Your task to perform on an android device: star an email in the gmail app Image 0: 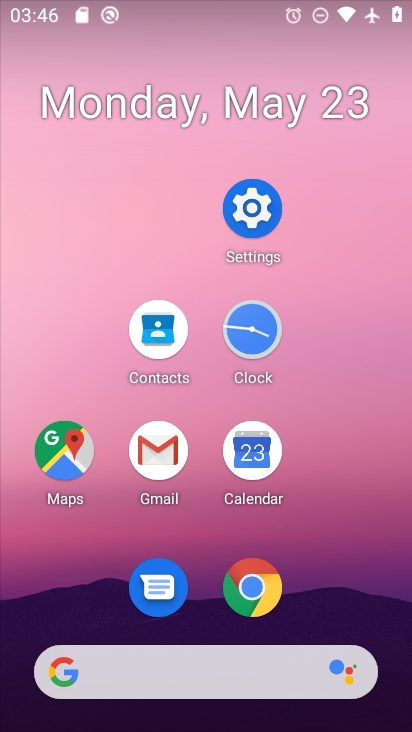
Step 0: click (160, 471)
Your task to perform on an android device: star an email in the gmail app Image 1: 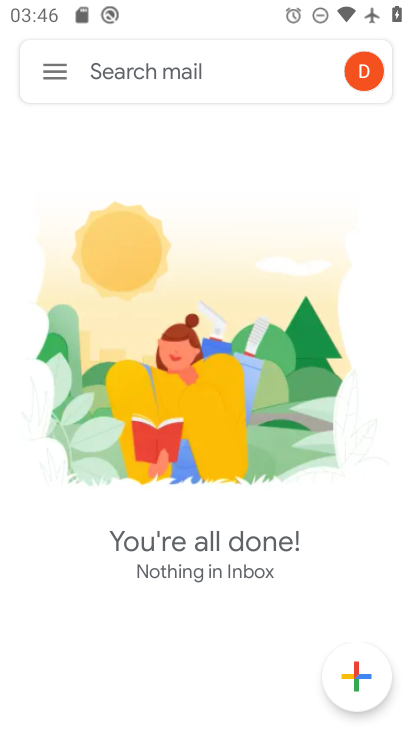
Step 1: click (52, 73)
Your task to perform on an android device: star an email in the gmail app Image 2: 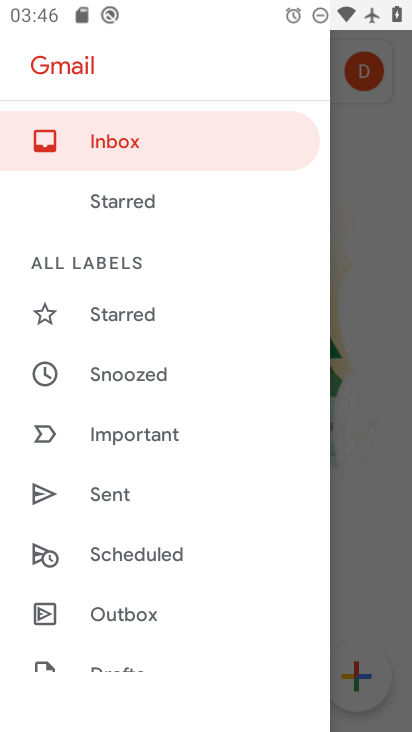
Step 2: click (127, 324)
Your task to perform on an android device: star an email in the gmail app Image 3: 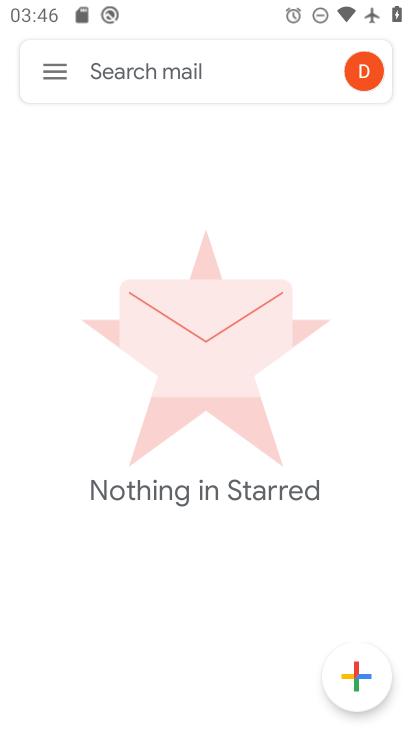
Step 3: task complete